Your task to perform on an android device: turn off improve location accuracy Image 0: 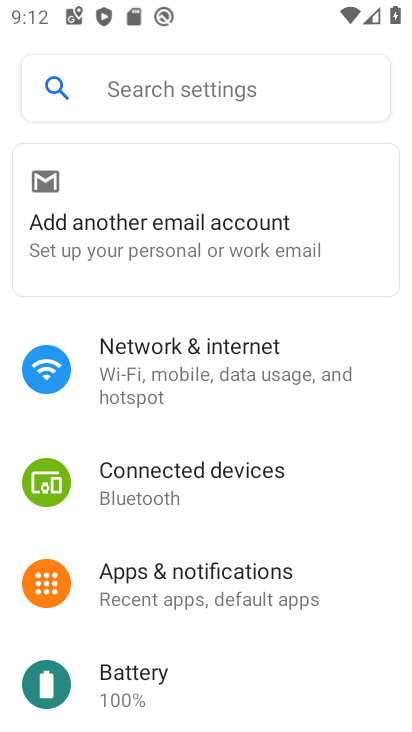
Step 0: drag from (218, 642) to (201, 246)
Your task to perform on an android device: turn off improve location accuracy Image 1: 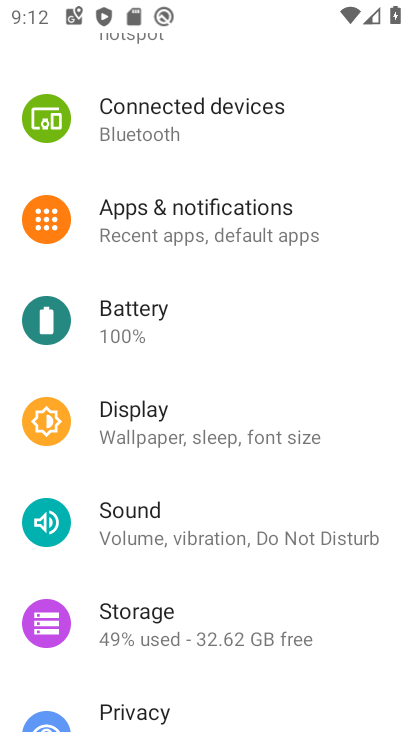
Step 1: drag from (221, 593) to (223, 195)
Your task to perform on an android device: turn off improve location accuracy Image 2: 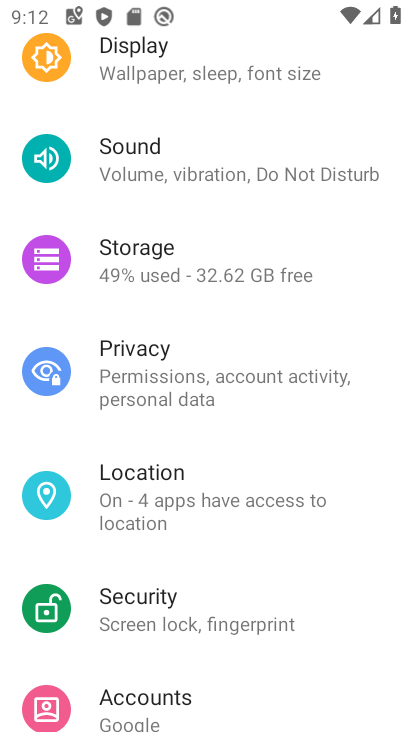
Step 2: click (150, 497)
Your task to perform on an android device: turn off improve location accuracy Image 3: 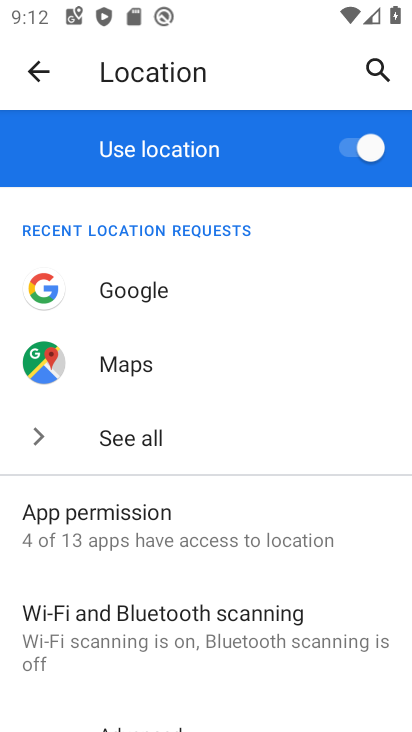
Step 3: drag from (191, 588) to (202, 257)
Your task to perform on an android device: turn off improve location accuracy Image 4: 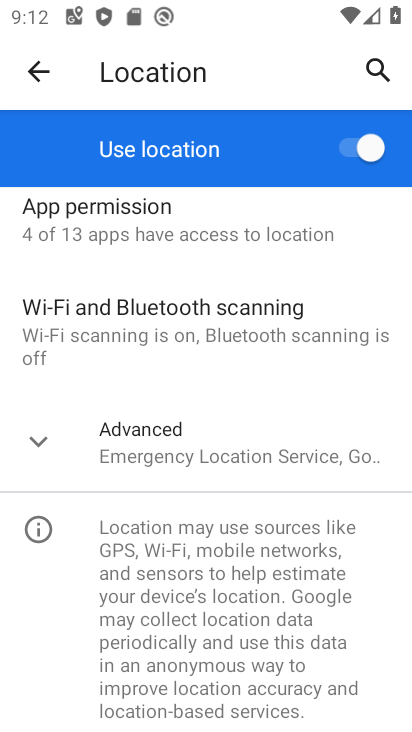
Step 4: click (190, 450)
Your task to perform on an android device: turn off improve location accuracy Image 5: 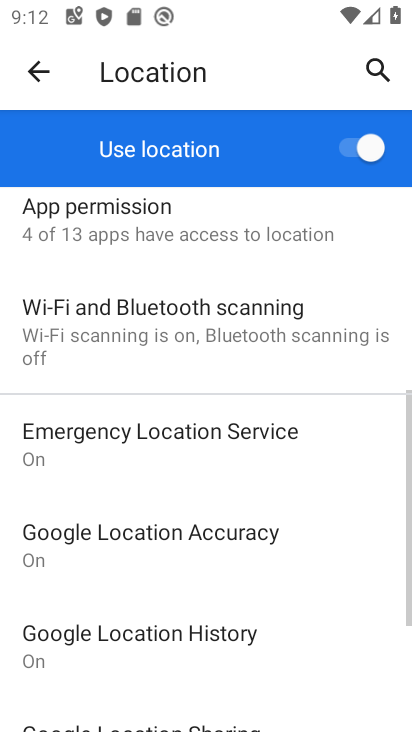
Step 5: drag from (203, 682) to (204, 450)
Your task to perform on an android device: turn off improve location accuracy Image 6: 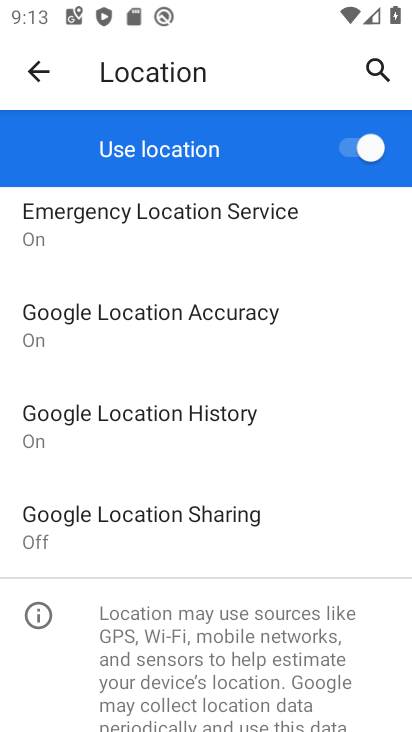
Step 6: click (146, 309)
Your task to perform on an android device: turn off improve location accuracy Image 7: 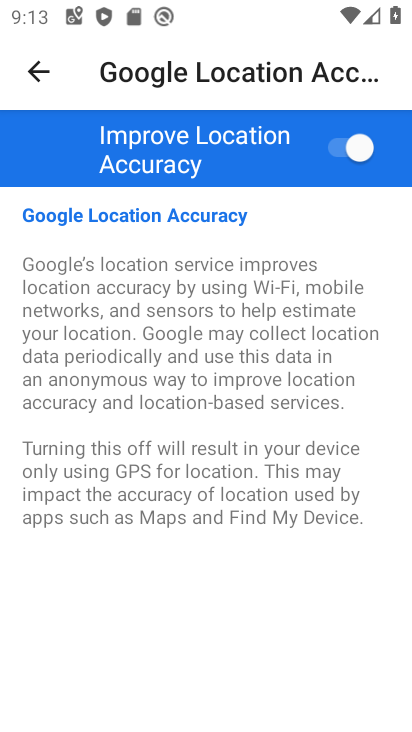
Step 7: click (337, 149)
Your task to perform on an android device: turn off improve location accuracy Image 8: 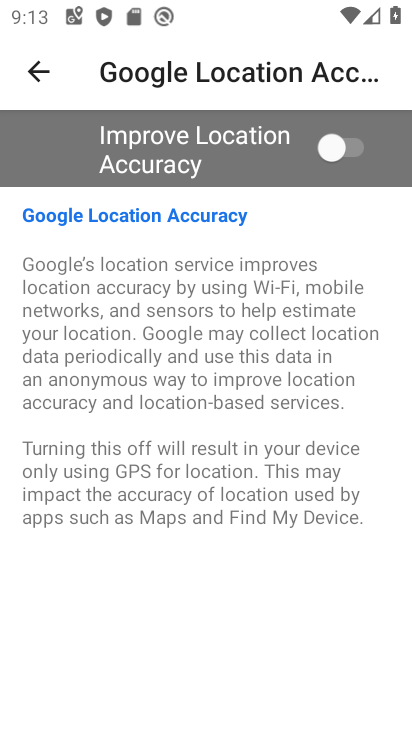
Step 8: task complete